Your task to perform on an android device: What is the news today? Image 0: 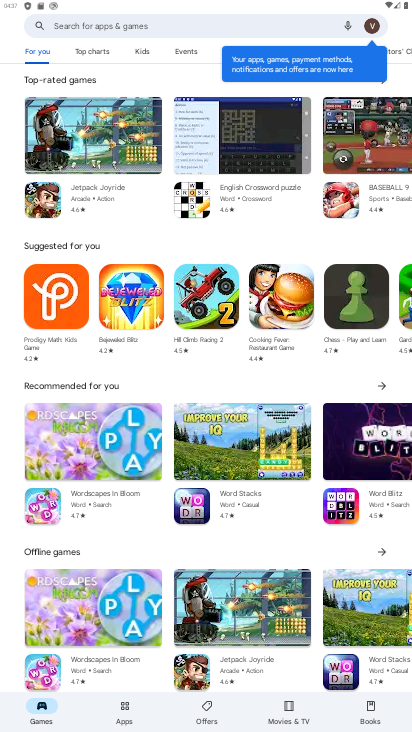
Step 0: press home button
Your task to perform on an android device: What is the news today? Image 1: 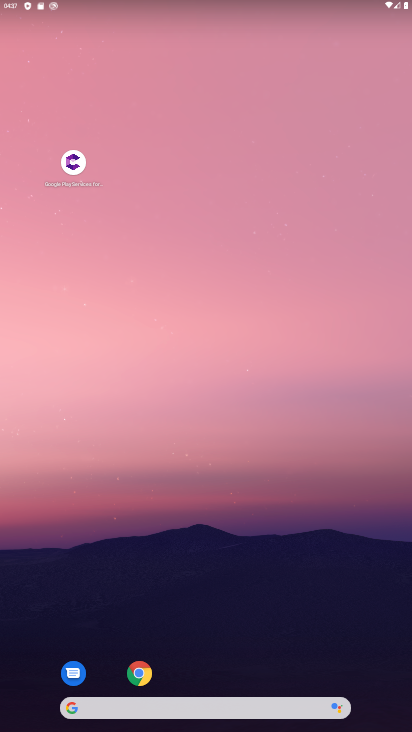
Step 1: click (205, 707)
Your task to perform on an android device: What is the news today? Image 2: 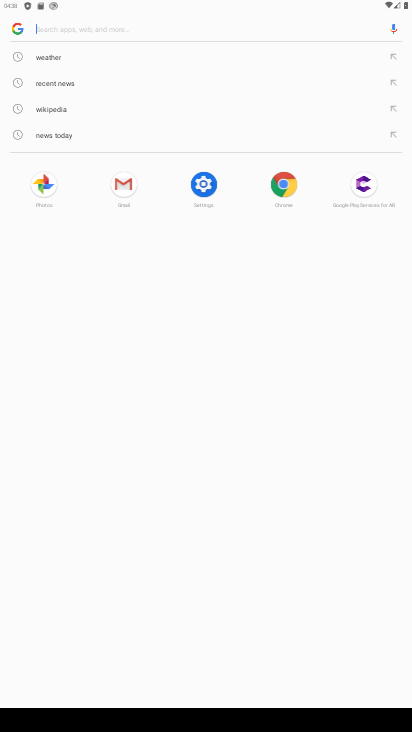
Step 2: type "news today ?"
Your task to perform on an android device: What is the news today? Image 3: 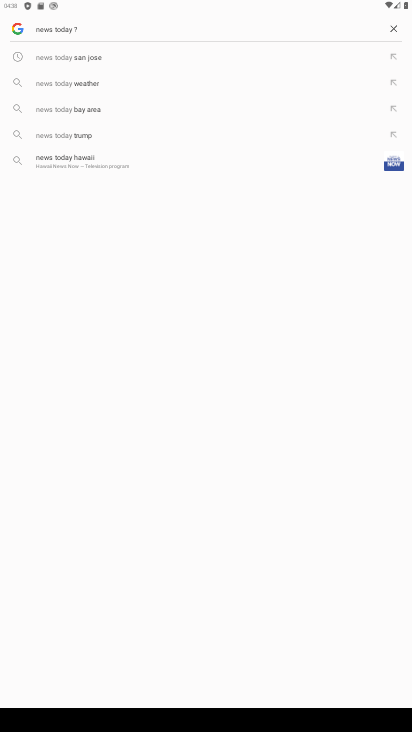
Step 3: click (60, 55)
Your task to perform on an android device: What is the news today? Image 4: 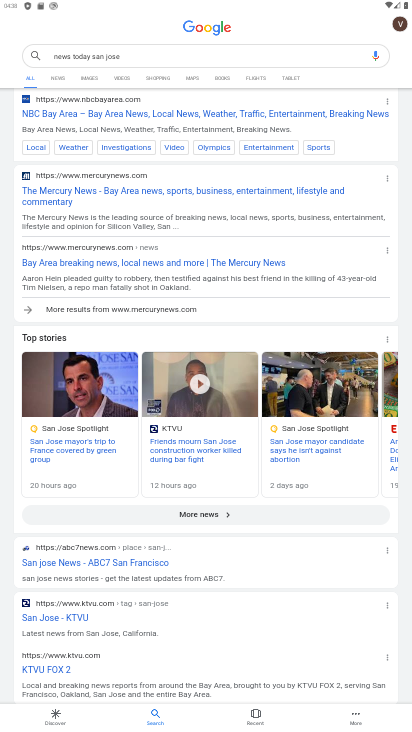
Step 4: task complete